Your task to perform on an android device: show emergency info Image 0: 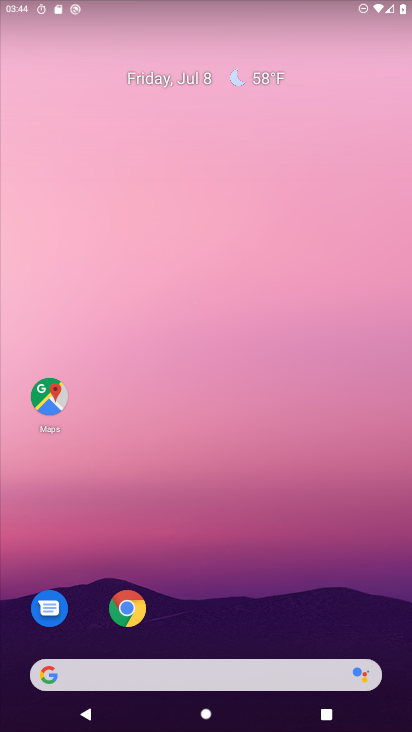
Step 0: drag from (244, 718) to (230, 93)
Your task to perform on an android device: show emergency info Image 1: 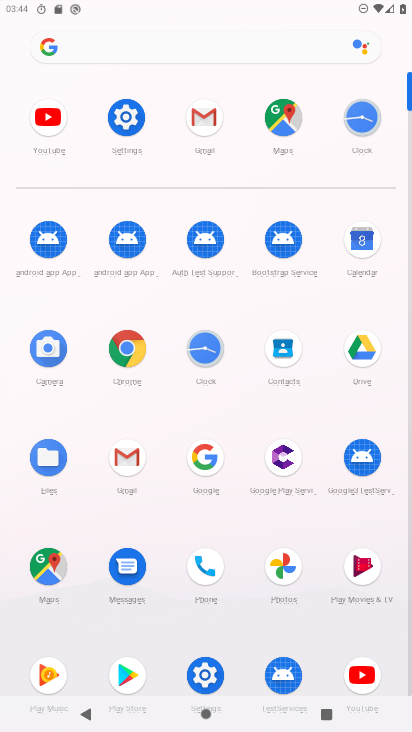
Step 1: click (121, 121)
Your task to perform on an android device: show emergency info Image 2: 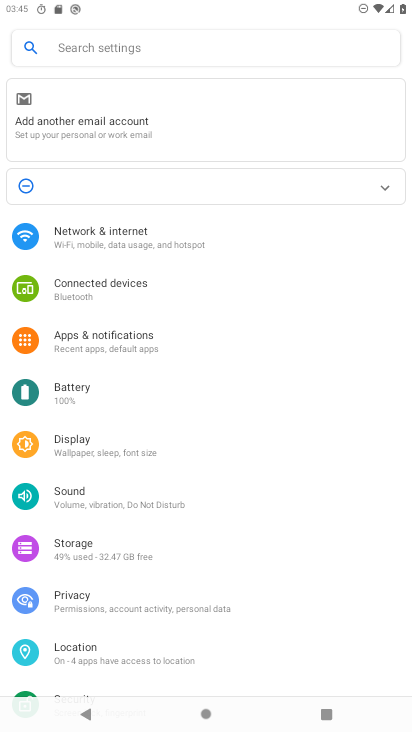
Step 2: drag from (214, 652) to (212, 211)
Your task to perform on an android device: show emergency info Image 3: 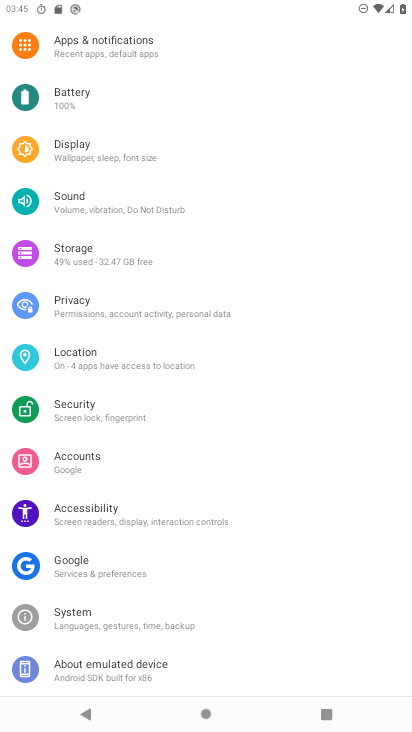
Step 3: click (144, 664)
Your task to perform on an android device: show emergency info Image 4: 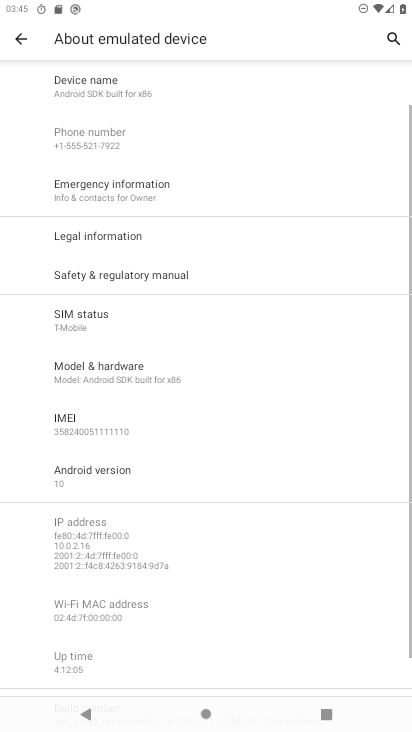
Step 4: click (135, 182)
Your task to perform on an android device: show emergency info Image 5: 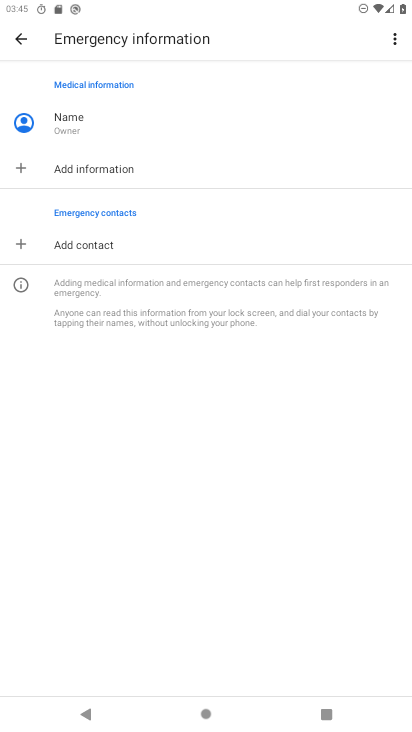
Step 5: task complete